Your task to perform on an android device: Open Reddit.com Image 0: 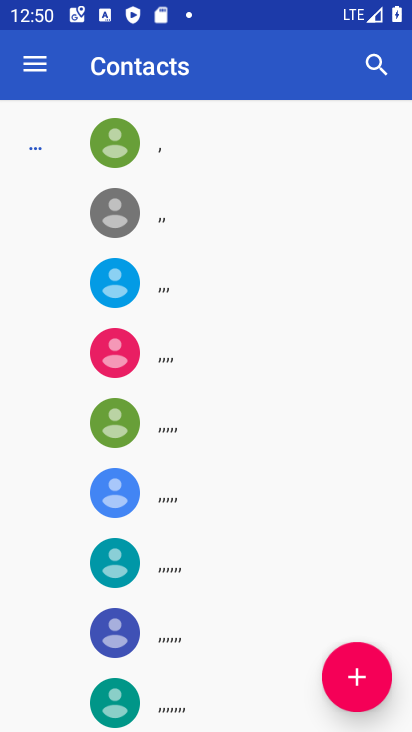
Step 0: press home button
Your task to perform on an android device: Open Reddit.com Image 1: 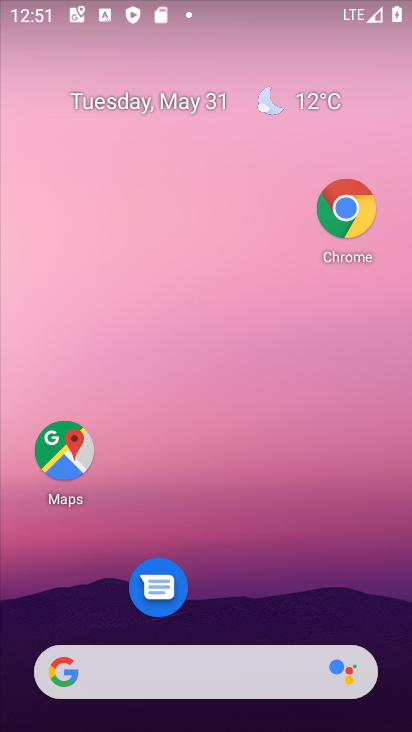
Step 1: click (202, 679)
Your task to perform on an android device: Open Reddit.com Image 2: 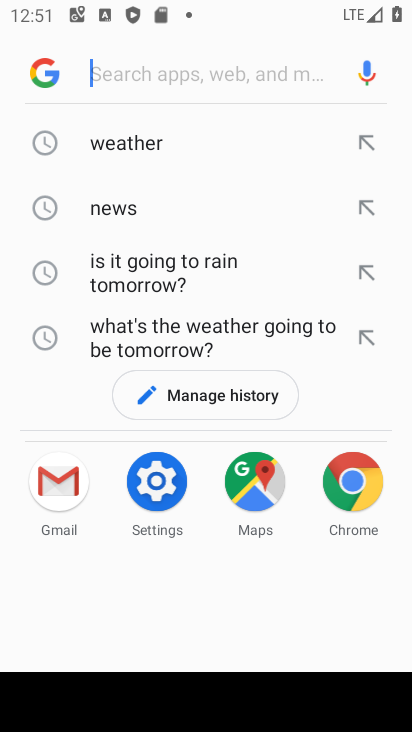
Step 2: type "reddit"
Your task to perform on an android device: Open Reddit.com Image 3: 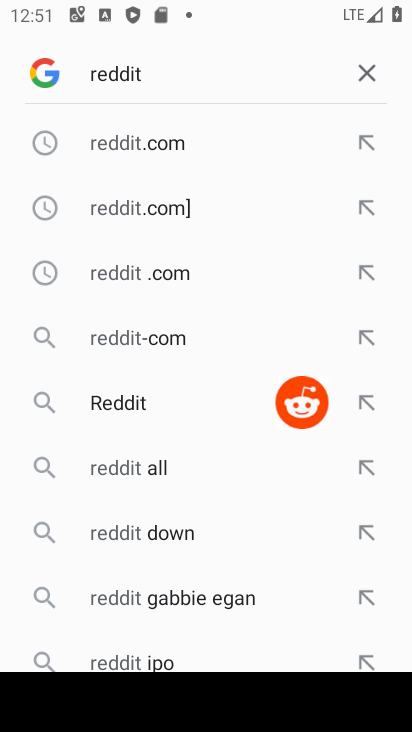
Step 3: click (165, 137)
Your task to perform on an android device: Open Reddit.com Image 4: 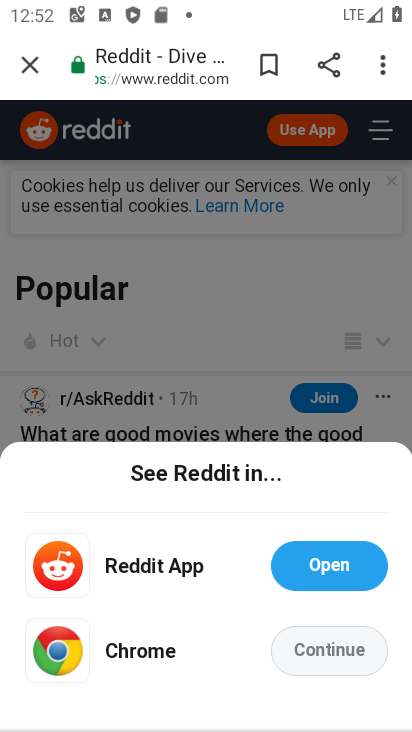
Step 4: task complete